Your task to perform on an android device: Open CNN.com Image 0: 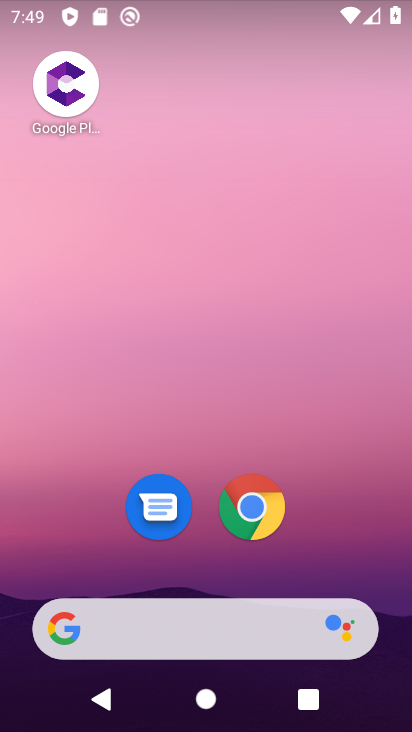
Step 0: click (250, 506)
Your task to perform on an android device: Open CNN.com Image 1: 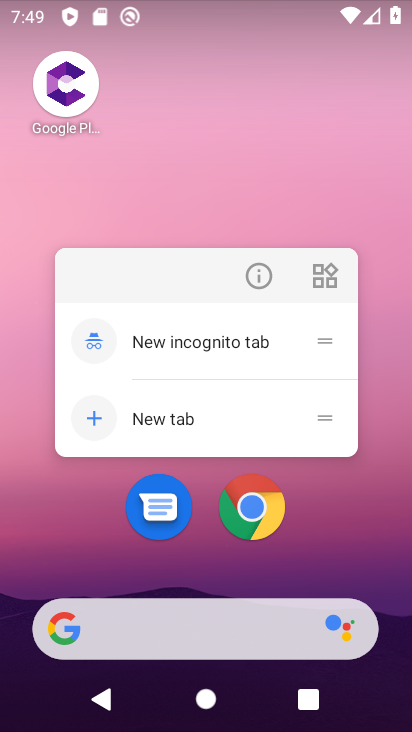
Step 1: click (250, 506)
Your task to perform on an android device: Open CNN.com Image 2: 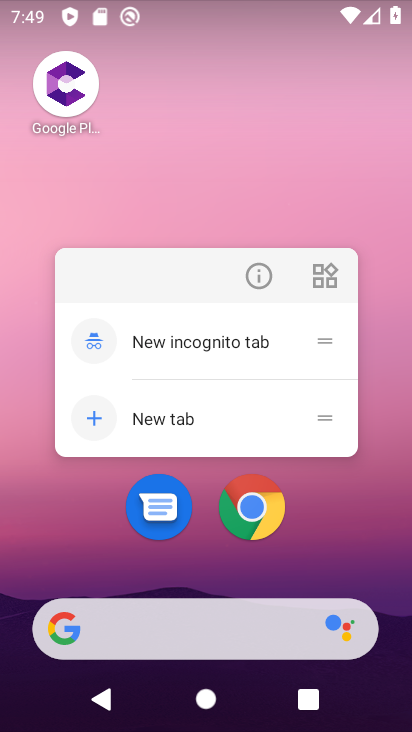
Step 2: click (249, 510)
Your task to perform on an android device: Open CNN.com Image 3: 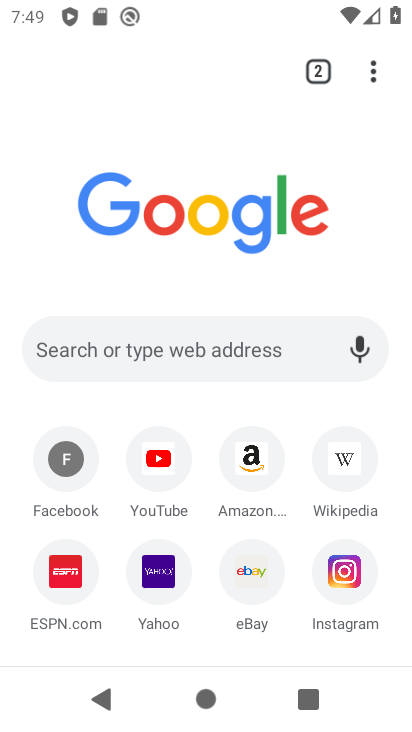
Step 3: click (144, 343)
Your task to perform on an android device: Open CNN.com Image 4: 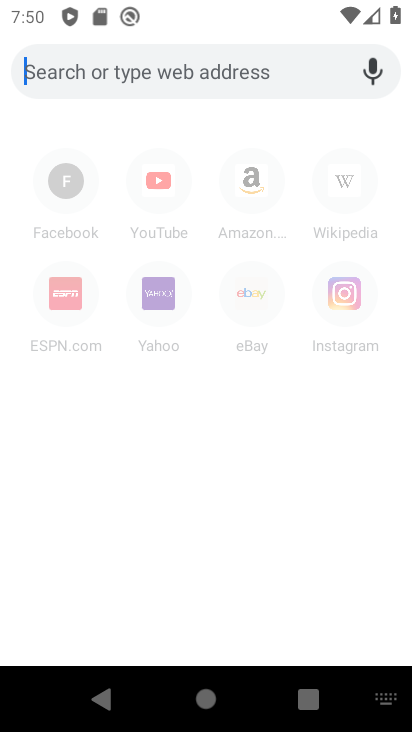
Step 4: type "CNN.com"
Your task to perform on an android device: Open CNN.com Image 5: 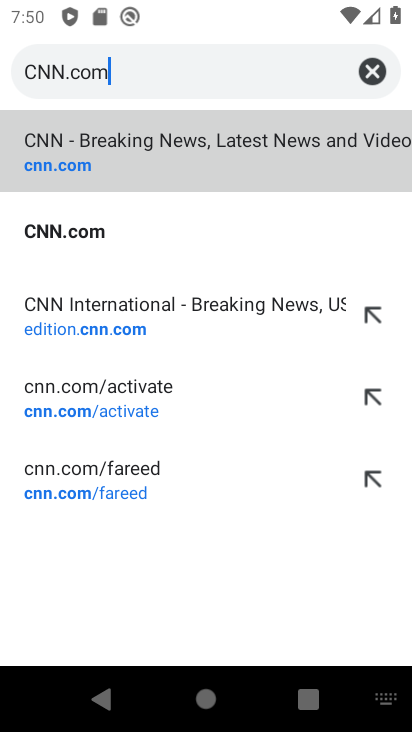
Step 5: click (65, 155)
Your task to perform on an android device: Open CNN.com Image 6: 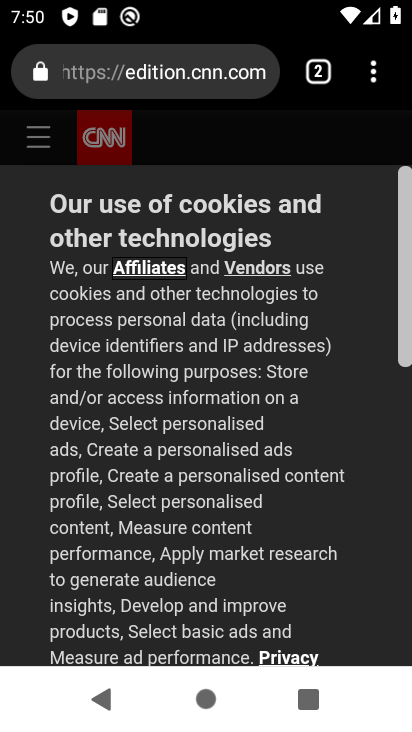
Step 6: task complete